Your task to perform on an android device: Open the calendar app, open the side menu, and click the "Day" option Image 0: 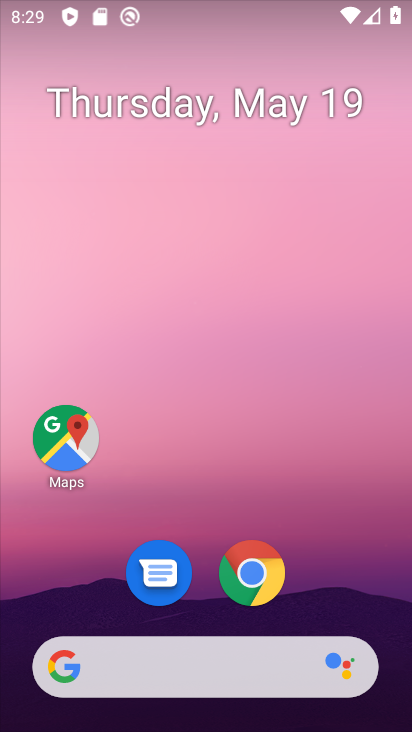
Step 0: drag from (349, 626) to (300, 5)
Your task to perform on an android device: Open the calendar app, open the side menu, and click the "Day" option Image 1: 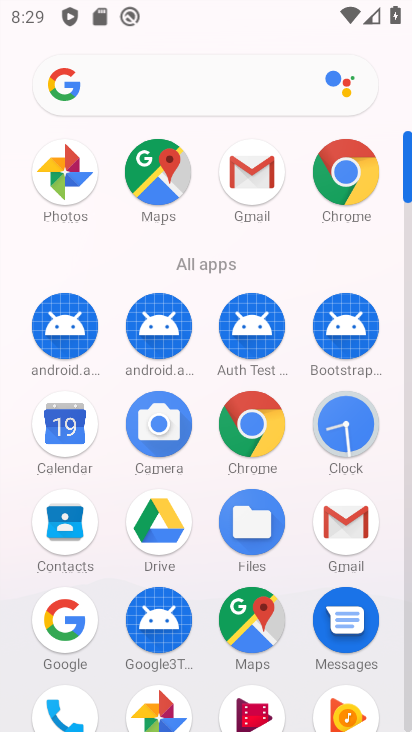
Step 1: click (53, 432)
Your task to perform on an android device: Open the calendar app, open the side menu, and click the "Day" option Image 2: 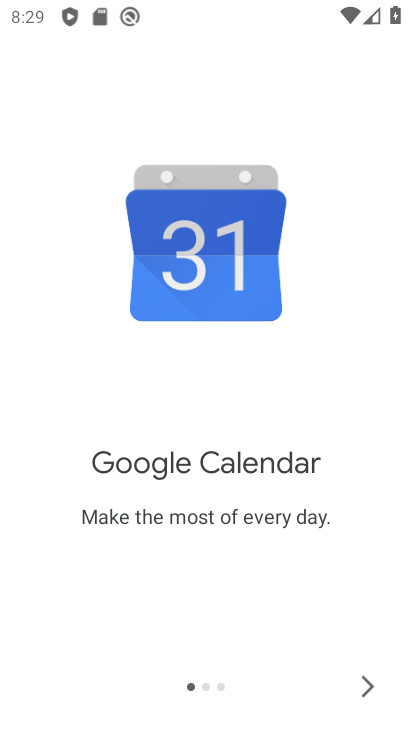
Step 2: click (372, 693)
Your task to perform on an android device: Open the calendar app, open the side menu, and click the "Day" option Image 3: 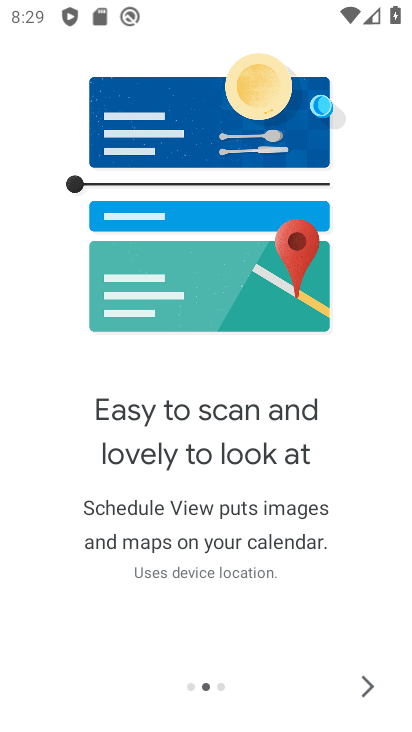
Step 3: click (372, 693)
Your task to perform on an android device: Open the calendar app, open the side menu, and click the "Day" option Image 4: 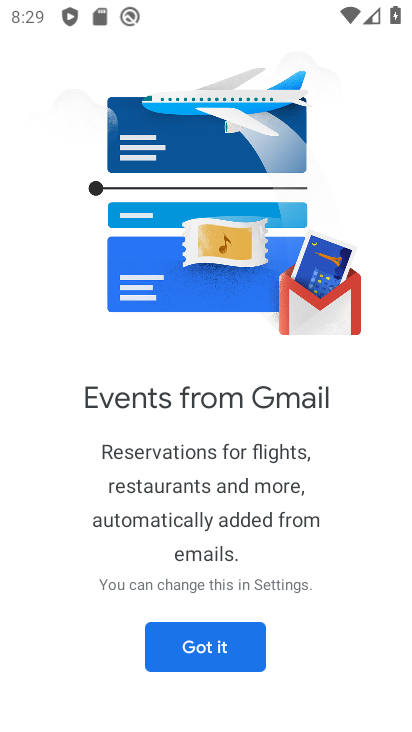
Step 4: click (184, 645)
Your task to perform on an android device: Open the calendar app, open the side menu, and click the "Day" option Image 5: 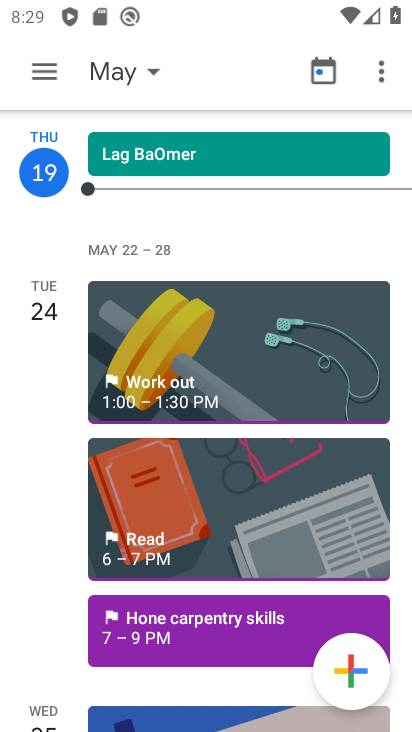
Step 5: click (47, 68)
Your task to perform on an android device: Open the calendar app, open the side menu, and click the "Day" option Image 6: 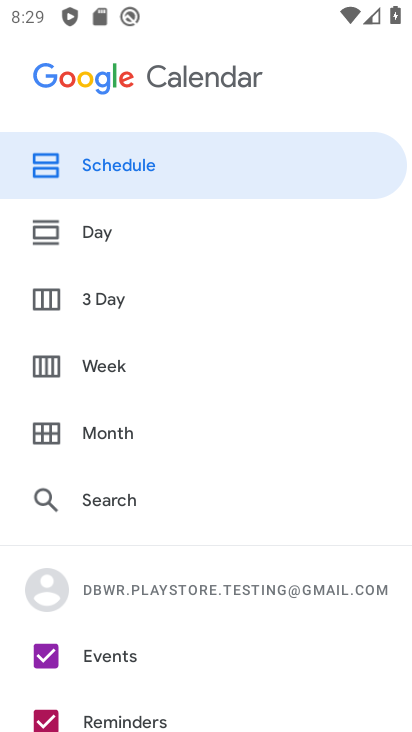
Step 6: click (65, 241)
Your task to perform on an android device: Open the calendar app, open the side menu, and click the "Day" option Image 7: 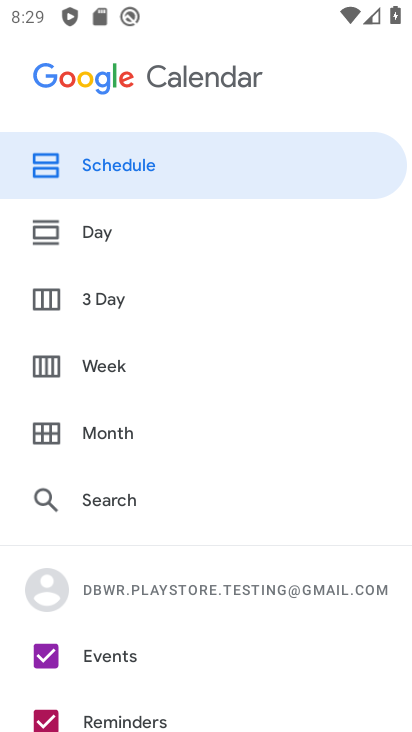
Step 7: click (64, 231)
Your task to perform on an android device: Open the calendar app, open the side menu, and click the "Day" option Image 8: 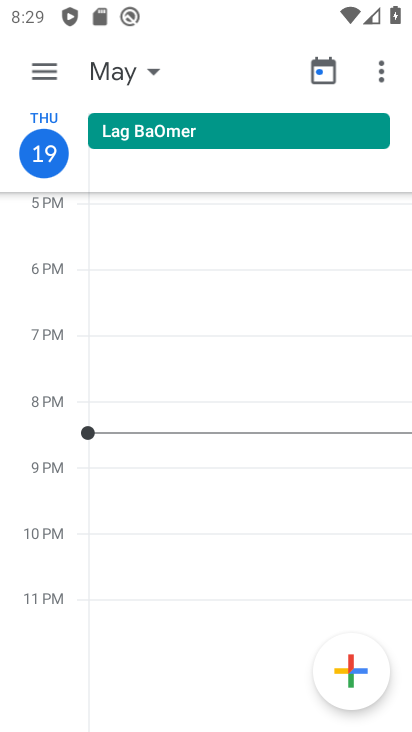
Step 8: task complete